Your task to perform on an android device: Open battery settings Image 0: 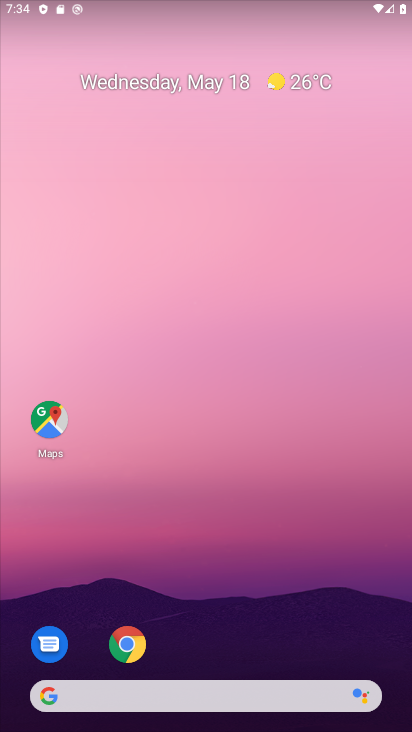
Step 0: click (121, 650)
Your task to perform on an android device: Open battery settings Image 1: 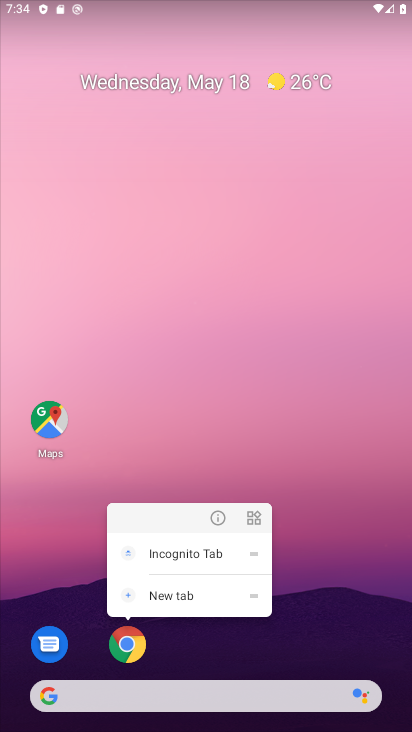
Step 1: click (307, 339)
Your task to perform on an android device: Open battery settings Image 2: 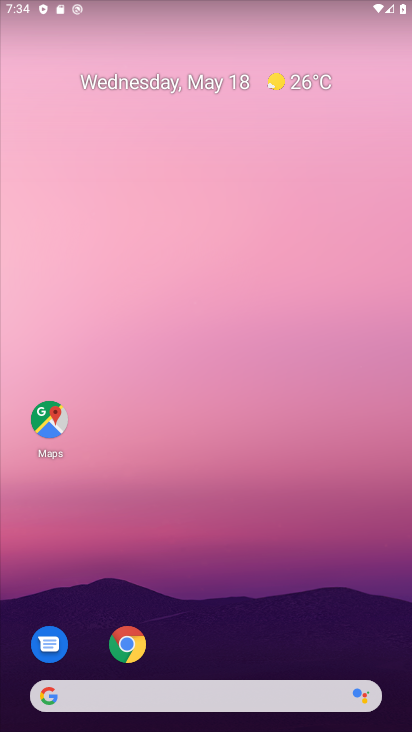
Step 2: drag from (393, 450) to (389, 154)
Your task to perform on an android device: Open battery settings Image 3: 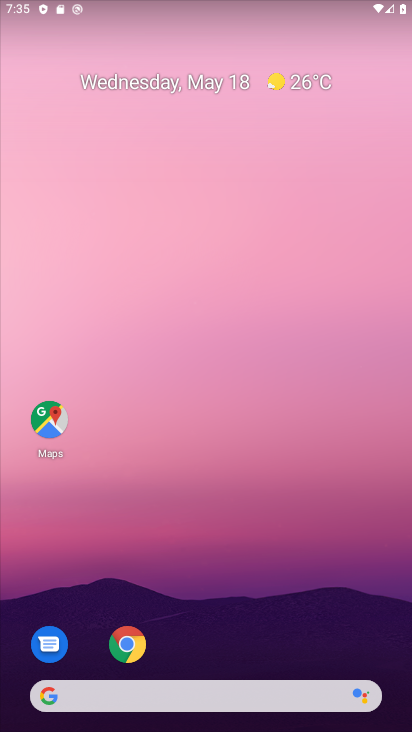
Step 3: drag from (388, 553) to (375, 151)
Your task to perform on an android device: Open battery settings Image 4: 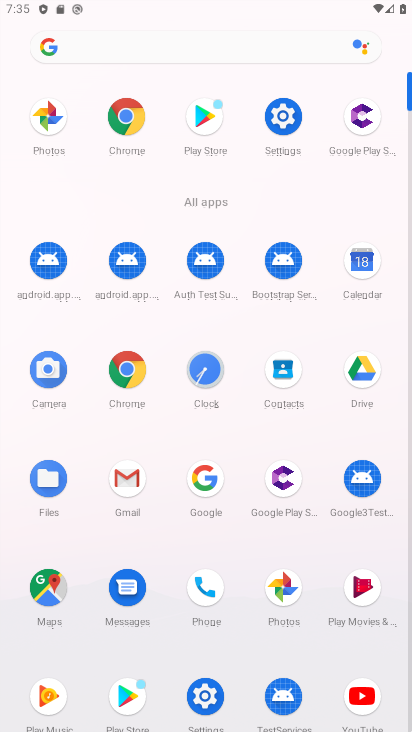
Step 4: click (279, 121)
Your task to perform on an android device: Open battery settings Image 5: 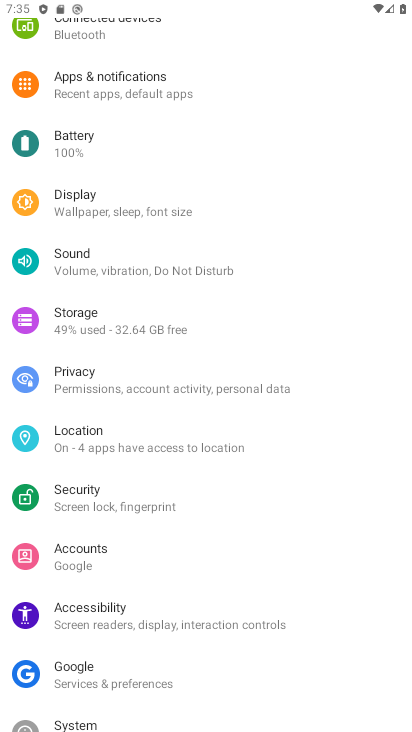
Step 5: click (69, 137)
Your task to perform on an android device: Open battery settings Image 6: 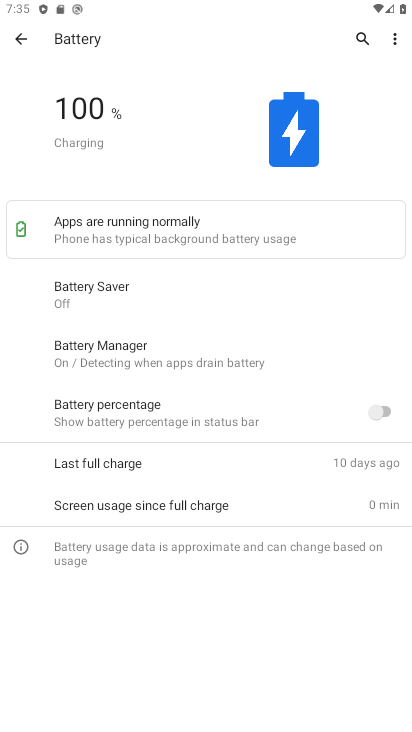
Step 6: task complete